Your task to perform on an android device: Search for "usb-a to usb-b" on walmart.com, select the first entry, and add it to the cart. Image 0: 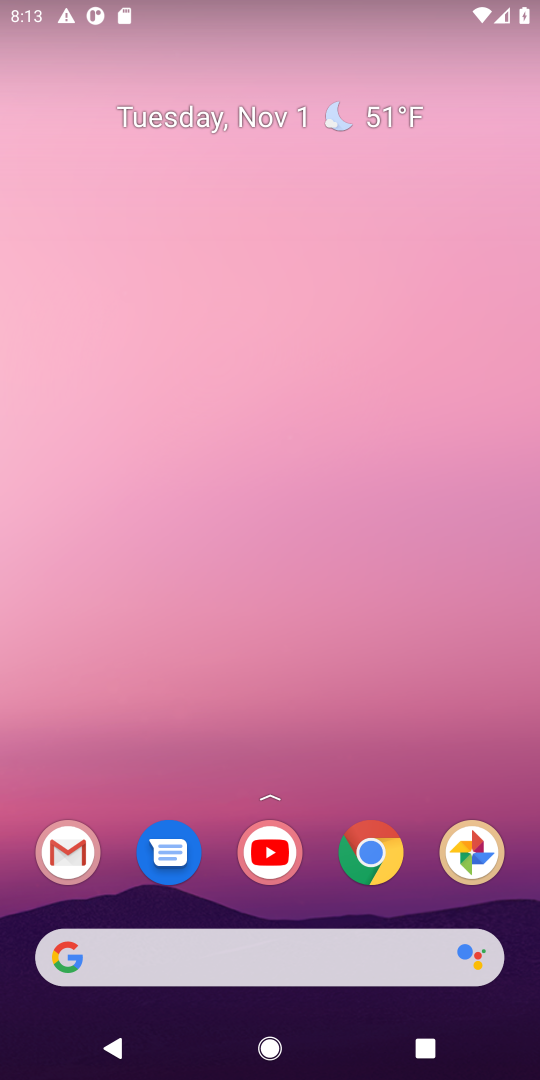
Step 0: click (353, 134)
Your task to perform on an android device: Search for "usb-a to usb-b" on walmart.com, select the first entry, and add it to the cart. Image 1: 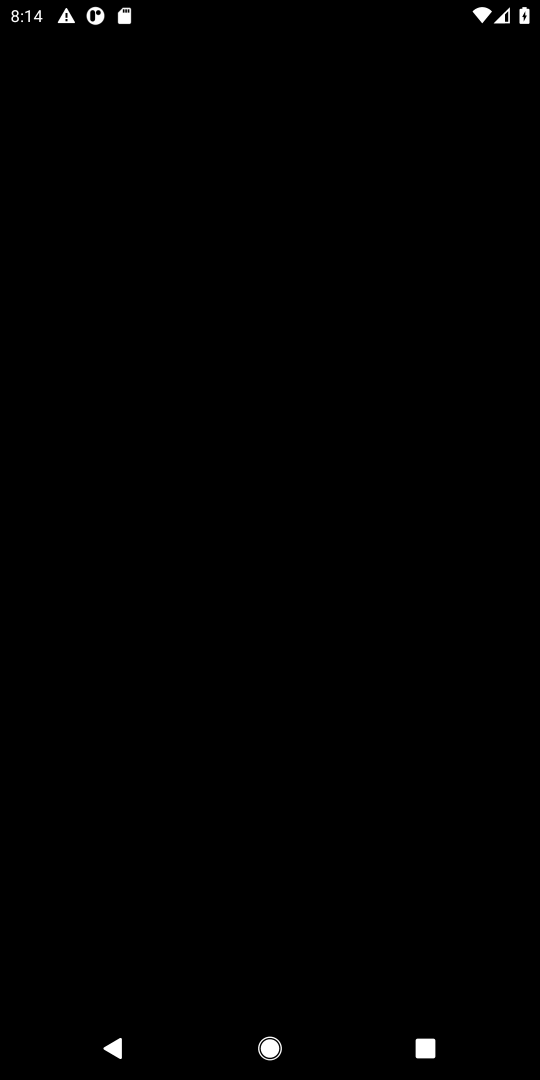
Step 1: press home button
Your task to perform on an android device: Search for "usb-a to usb-b" on walmart.com, select the first entry, and add it to the cart. Image 2: 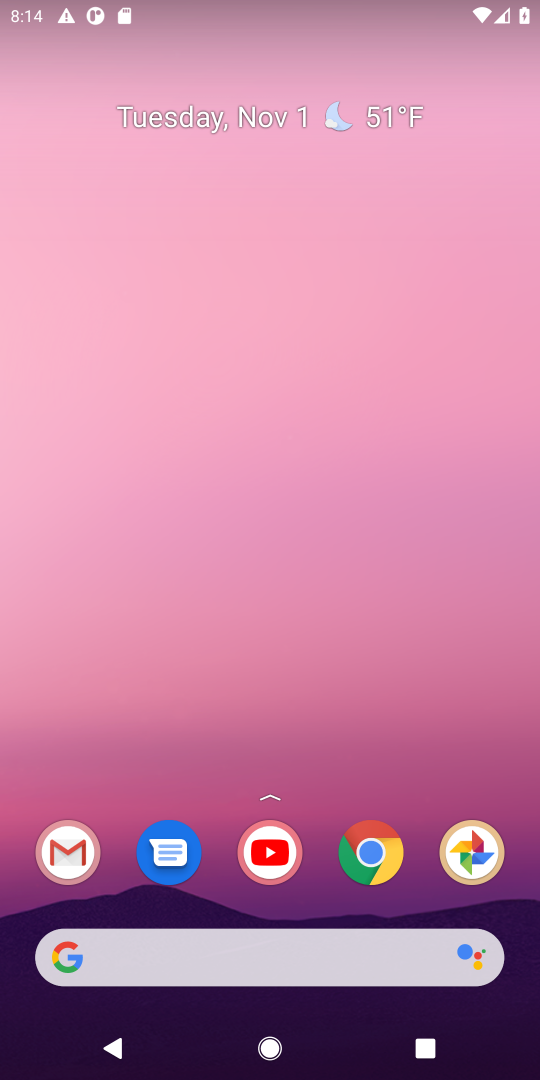
Step 2: drag from (247, 922) to (256, 488)
Your task to perform on an android device: Search for "usb-a to usb-b" on walmart.com, select the first entry, and add it to the cart. Image 3: 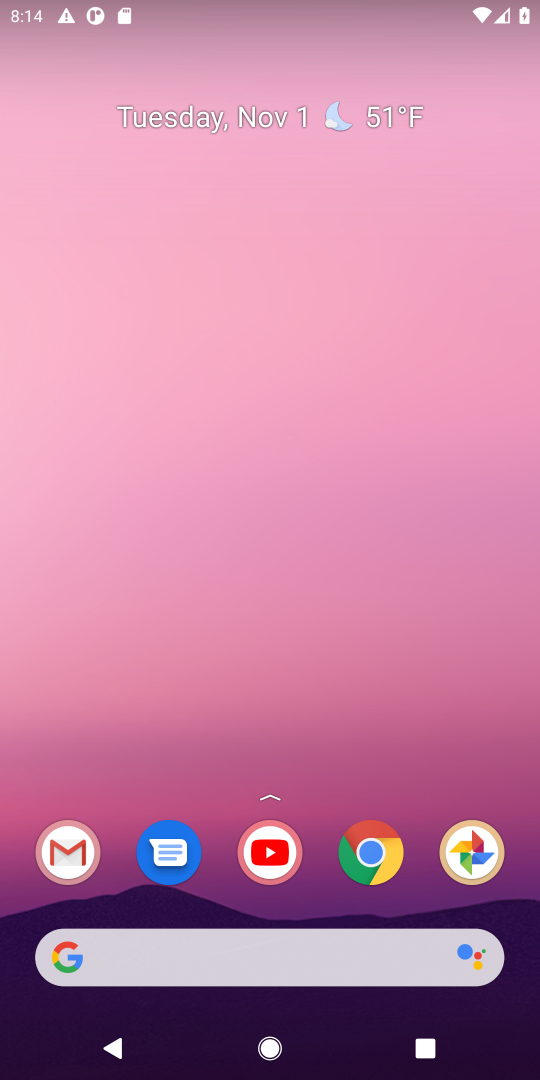
Step 3: drag from (309, 839) to (323, 227)
Your task to perform on an android device: Search for "usb-a to usb-b" on walmart.com, select the first entry, and add it to the cart. Image 4: 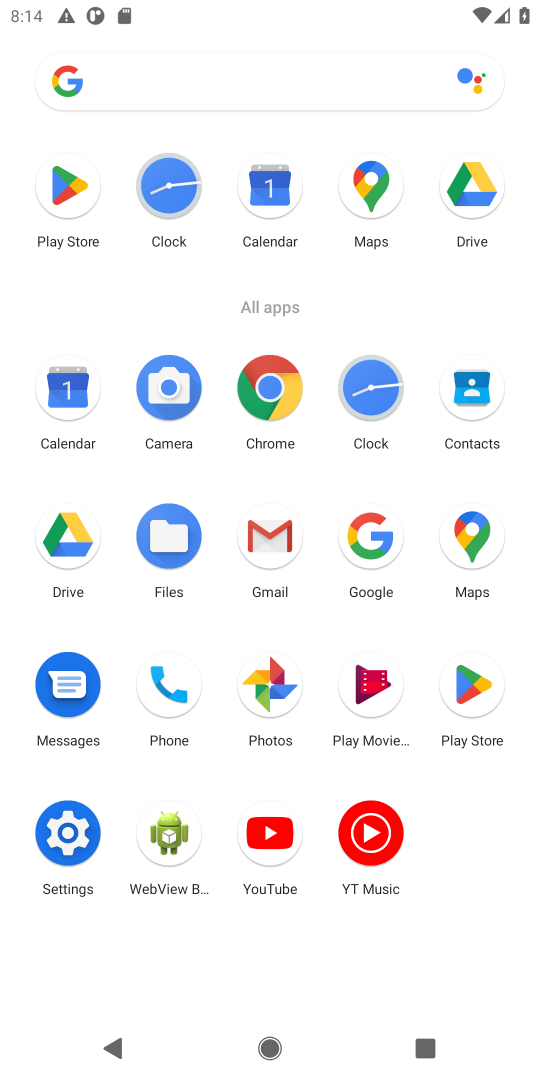
Step 4: click (378, 575)
Your task to perform on an android device: Search for "usb-a to usb-b" on walmart.com, select the first entry, and add it to the cart. Image 5: 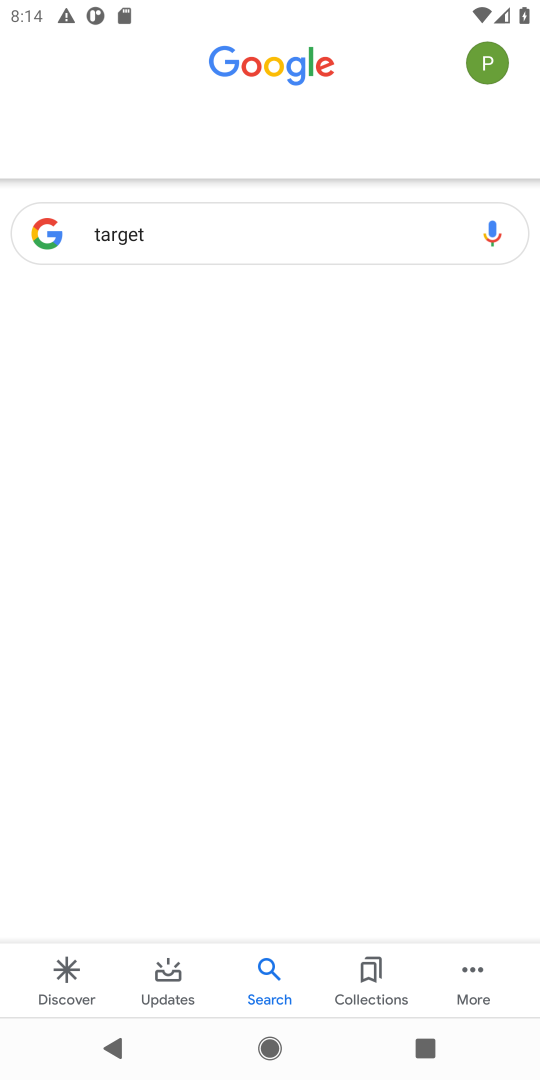
Step 5: click (219, 241)
Your task to perform on an android device: Search for "usb-a to usb-b" on walmart.com, select the first entry, and add it to the cart. Image 6: 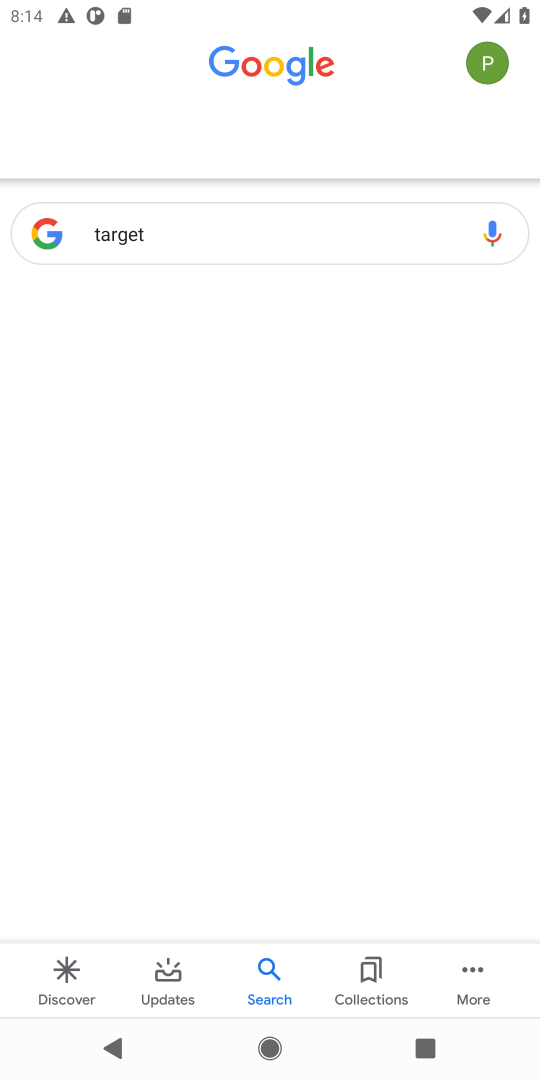
Step 6: click (219, 241)
Your task to perform on an android device: Search for "usb-a to usb-b" on walmart.com, select the first entry, and add it to the cart. Image 7: 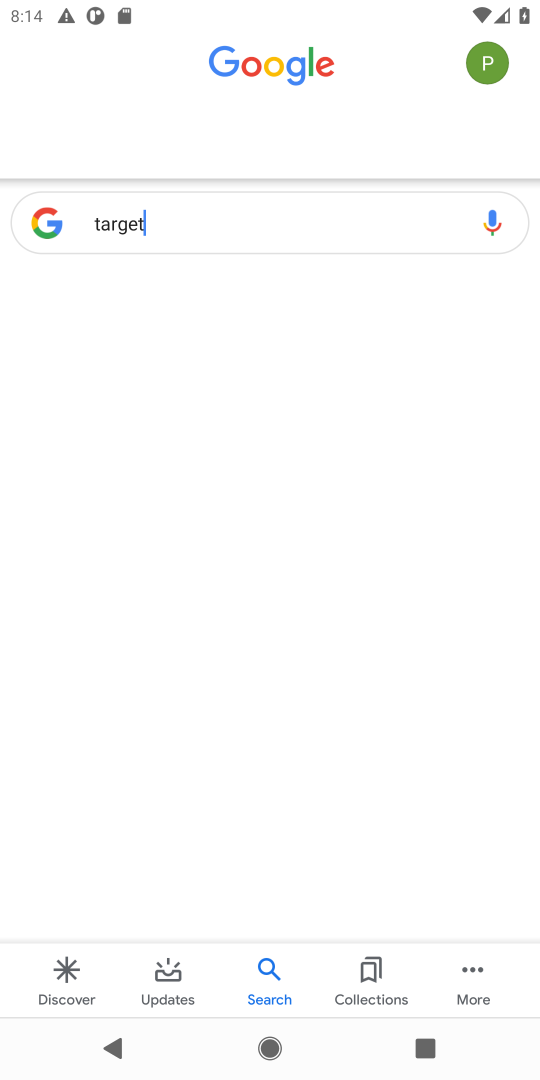
Step 7: click (219, 241)
Your task to perform on an android device: Search for "usb-a to usb-b" on walmart.com, select the first entry, and add it to the cart. Image 8: 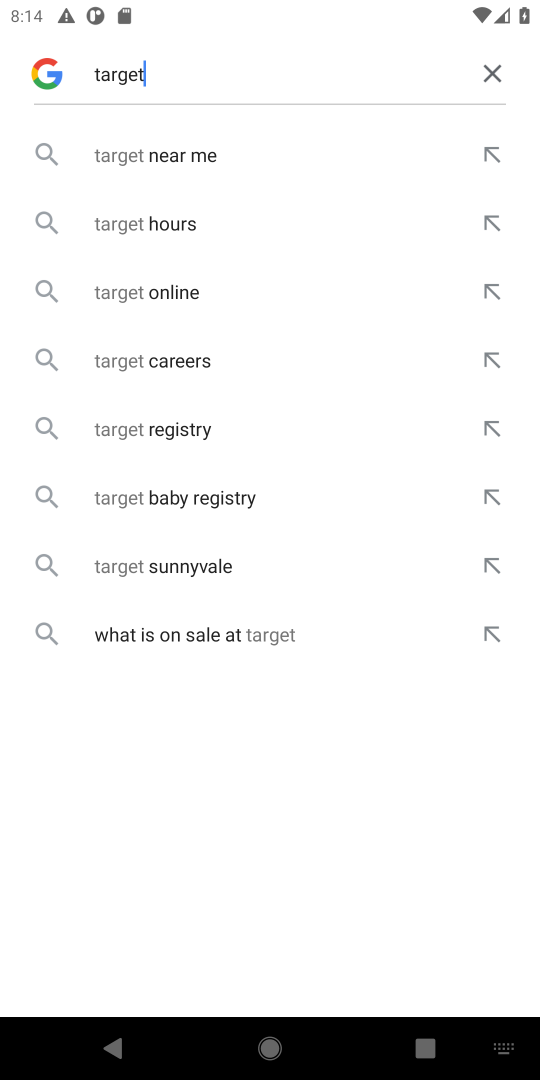
Step 8: click (465, 78)
Your task to perform on an android device: Search for "usb-a to usb-b" on walmart.com, select the first entry, and add it to the cart. Image 9: 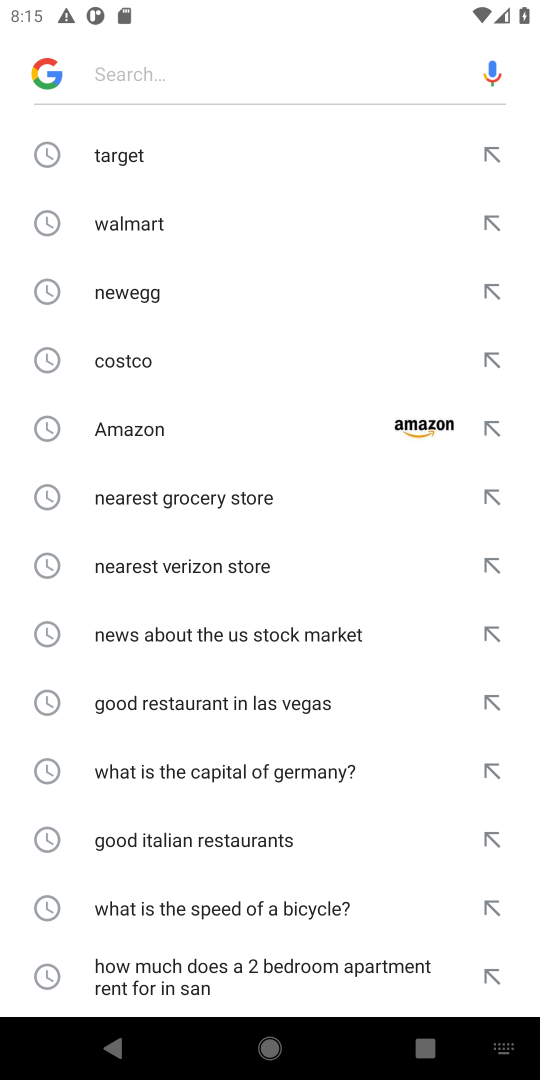
Step 9: type "walmart.com"
Your task to perform on an android device: Search for "usb-a to usb-b" on walmart.com, select the first entry, and add it to the cart. Image 10: 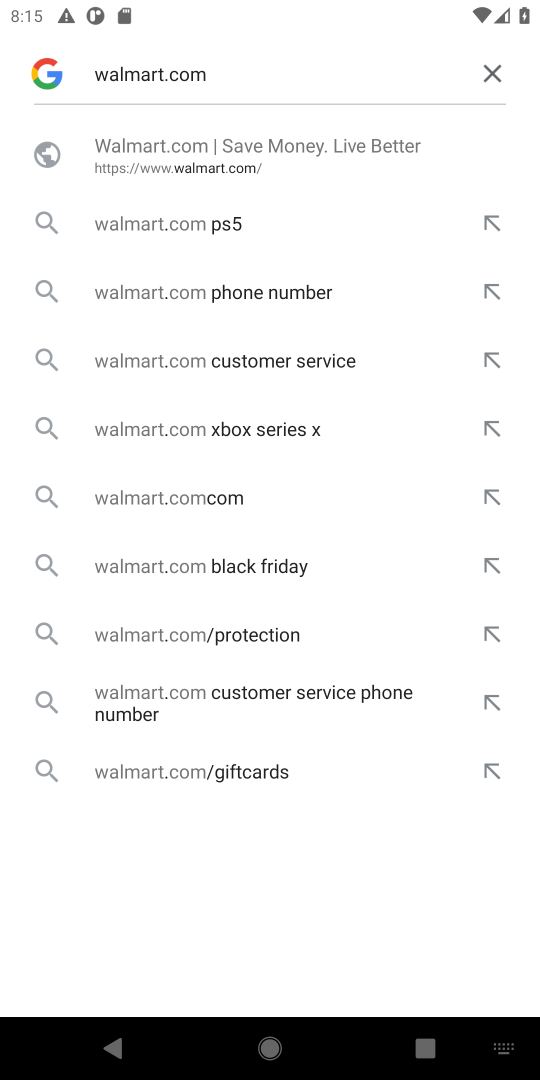
Step 10: click (238, 169)
Your task to perform on an android device: Search for "usb-a to usb-b" on walmart.com, select the first entry, and add it to the cart. Image 11: 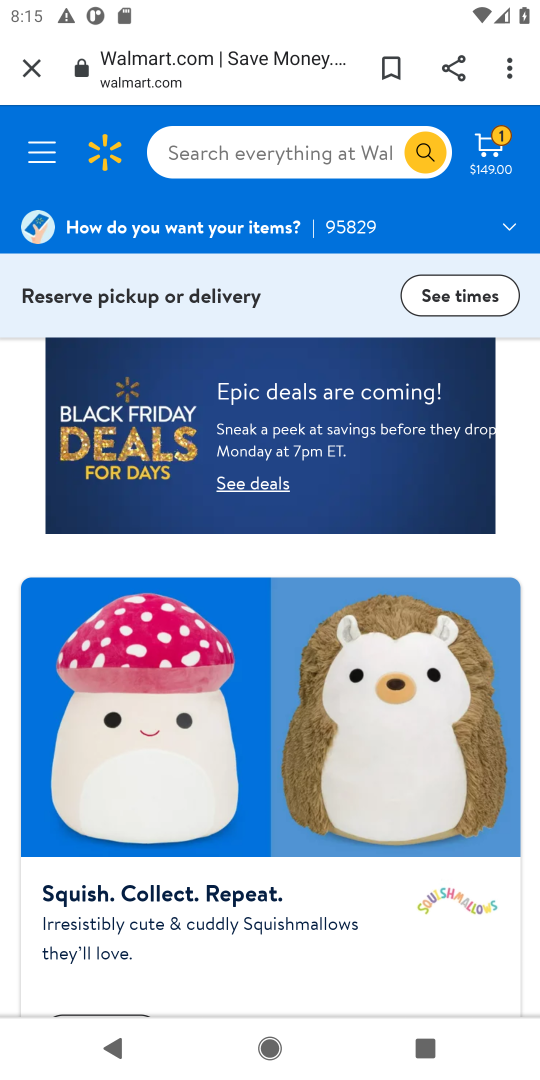
Step 11: click (291, 144)
Your task to perform on an android device: Search for "usb-a to usb-b" on walmart.com, select the first entry, and add it to the cart. Image 12: 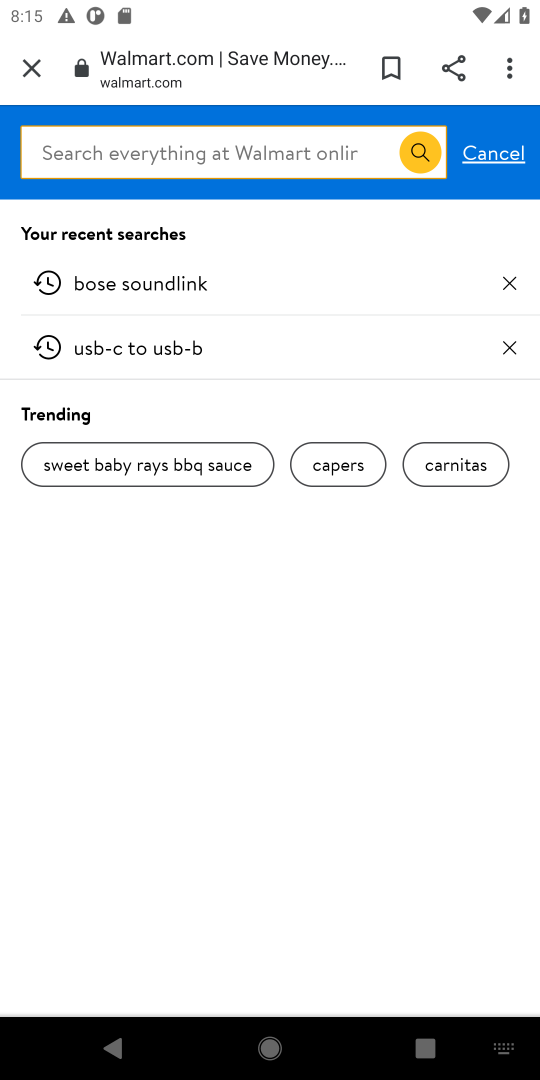
Step 12: type "usb-a to usb-b"
Your task to perform on an android device: Search for "usb-a to usb-b" on walmart.com, select the first entry, and add it to the cart. Image 13: 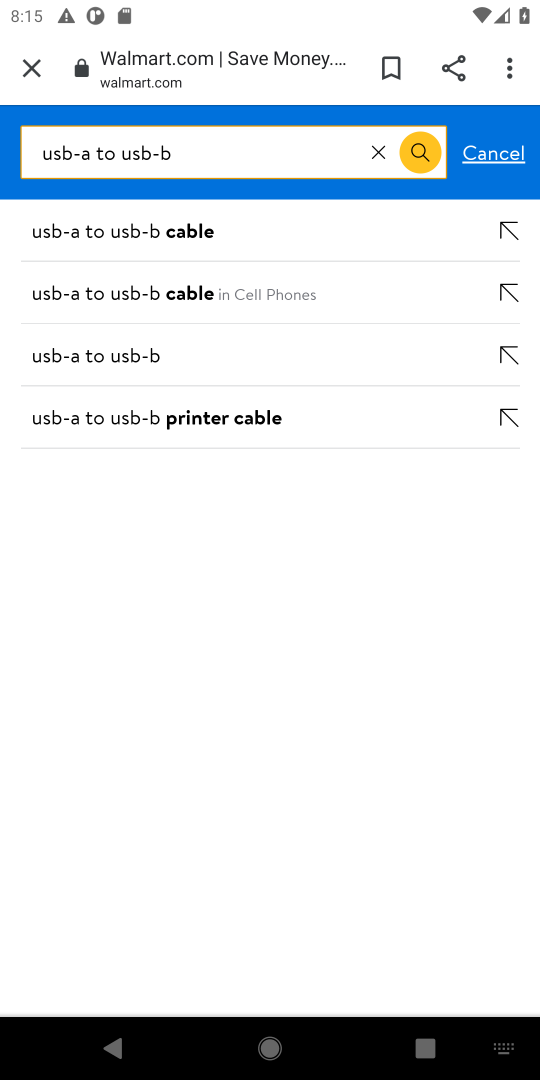
Step 13: click (322, 228)
Your task to perform on an android device: Search for "usb-a to usb-b" on walmart.com, select the first entry, and add it to the cart. Image 14: 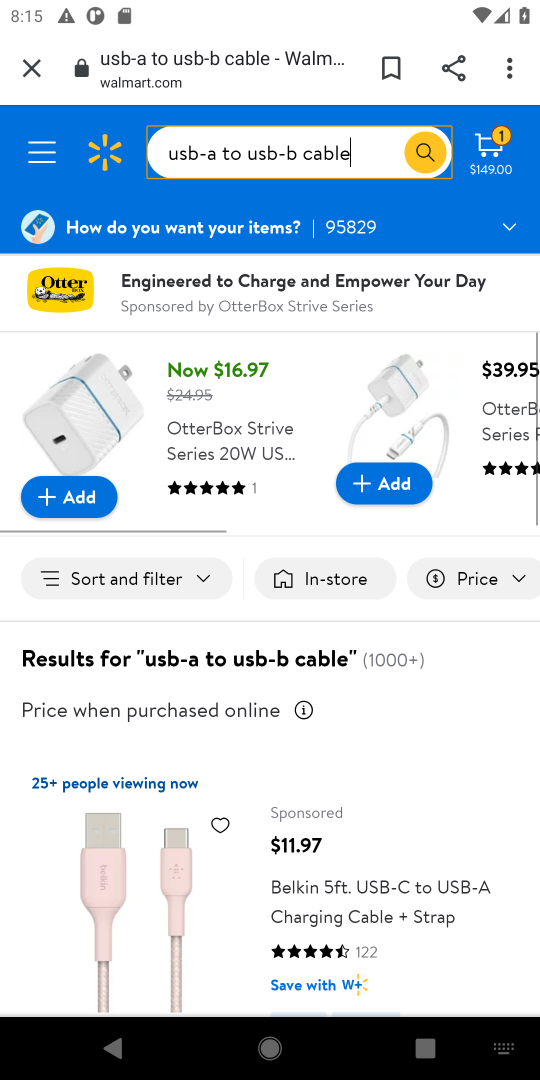
Step 14: drag from (355, 845) to (327, 368)
Your task to perform on an android device: Search for "usb-a to usb-b" on walmart.com, select the first entry, and add it to the cart. Image 15: 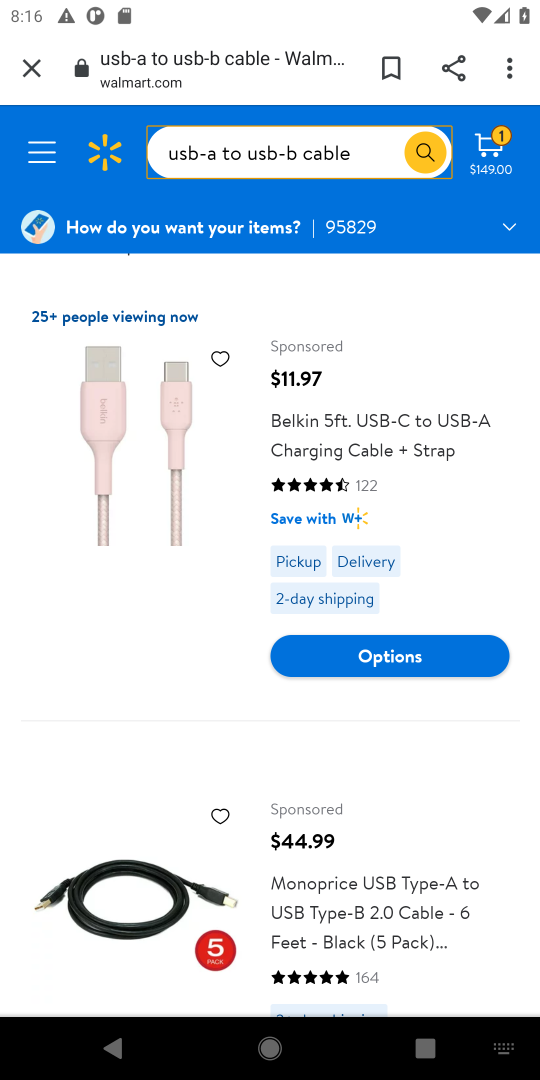
Step 15: drag from (411, 715) to (420, 380)
Your task to perform on an android device: Search for "usb-a to usb-b" on walmart.com, select the first entry, and add it to the cart. Image 16: 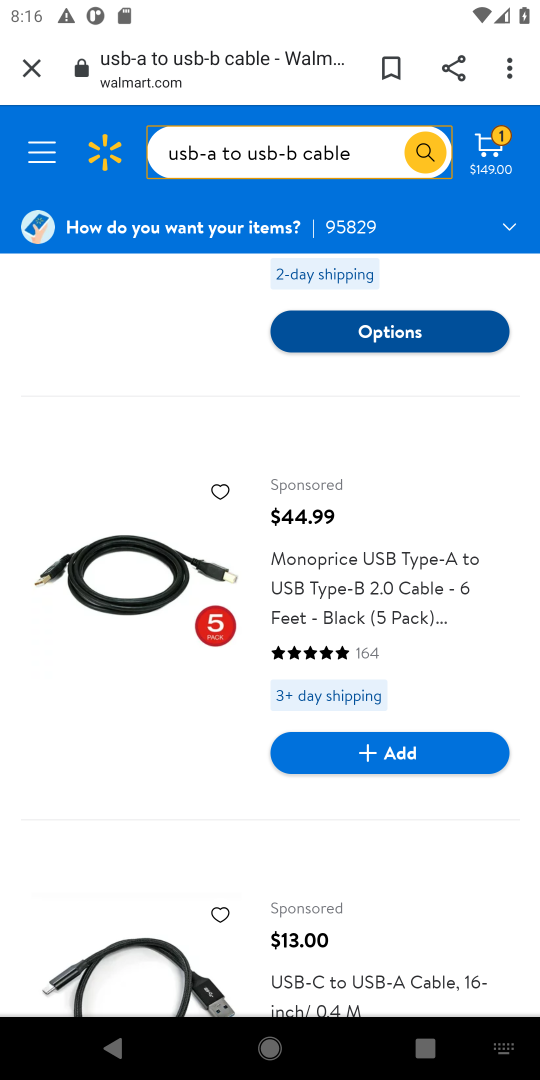
Step 16: click (406, 745)
Your task to perform on an android device: Search for "usb-a to usb-b" on walmart.com, select the first entry, and add it to the cart. Image 17: 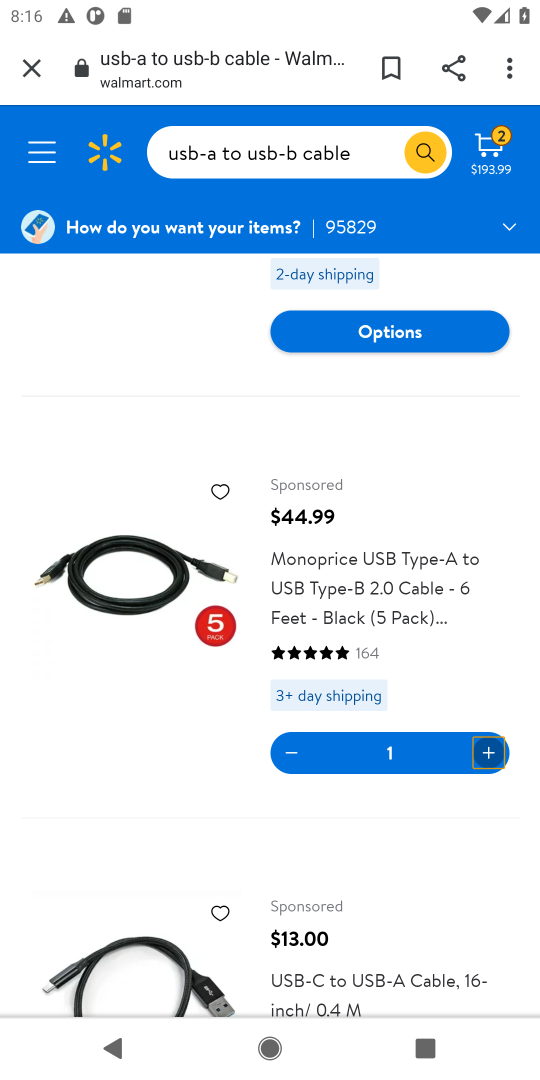
Step 17: task complete